Your task to perform on an android device: turn off location Image 0: 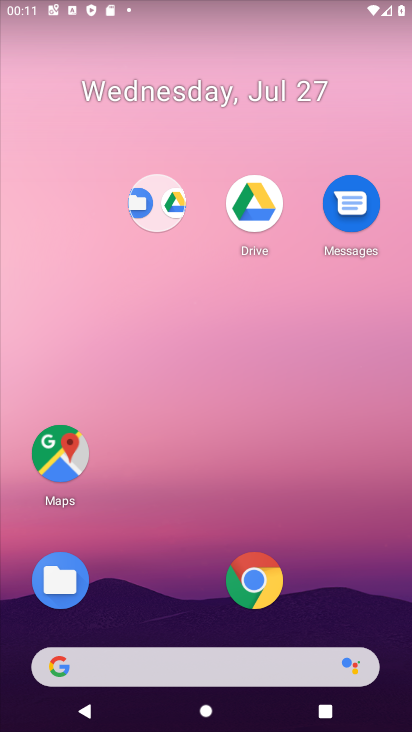
Step 0: drag from (145, 610) to (79, 83)
Your task to perform on an android device: turn off location Image 1: 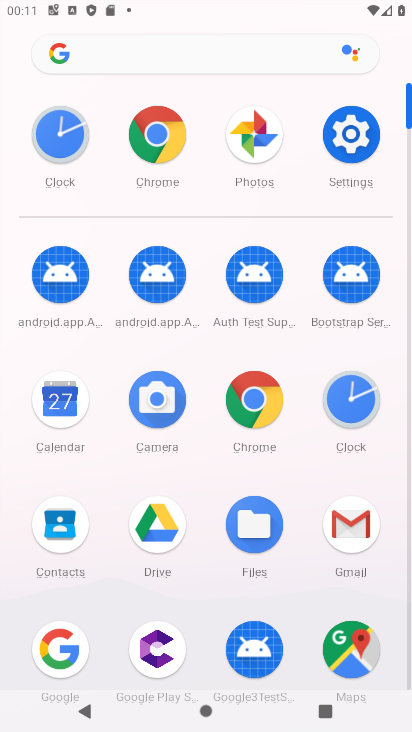
Step 1: click (334, 108)
Your task to perform on an android device: turn off location Image 2: 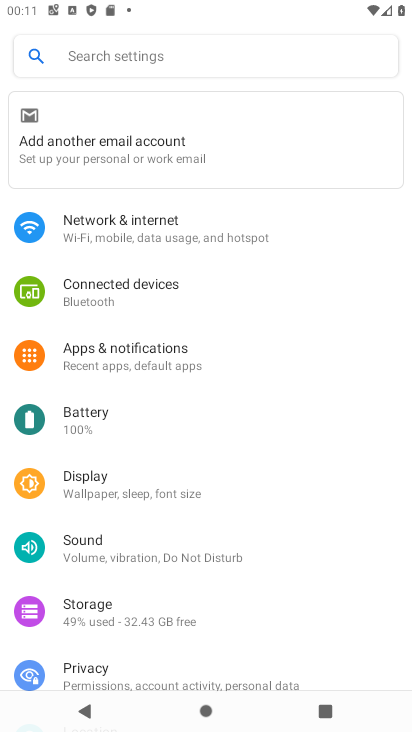
Step 2: drag from (108, 606) to (158, 235)
Your task to perform on an android device: turn off location Image 3: 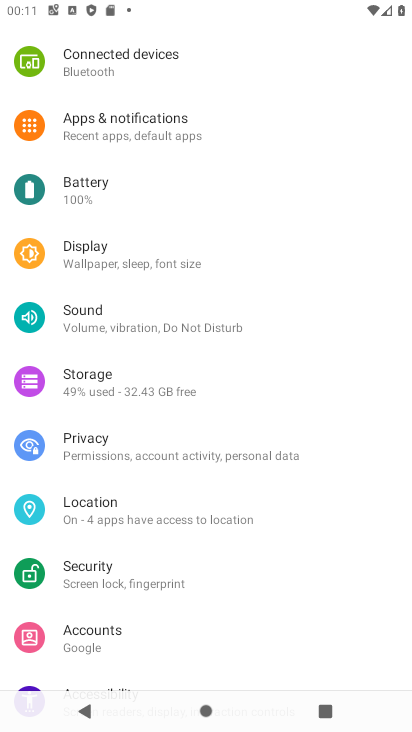
Step 3: click (87, 509)
Your task to perform on an android device: turn off location Image 4: 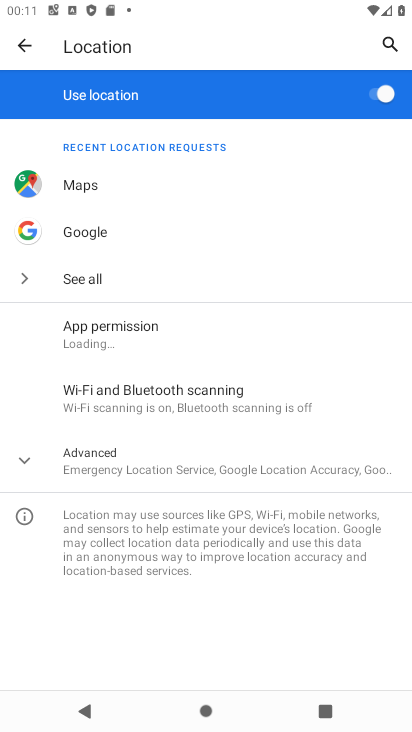
Step 4: click (387, 91)
Your task to perform on an android device: turn off location Image 5: 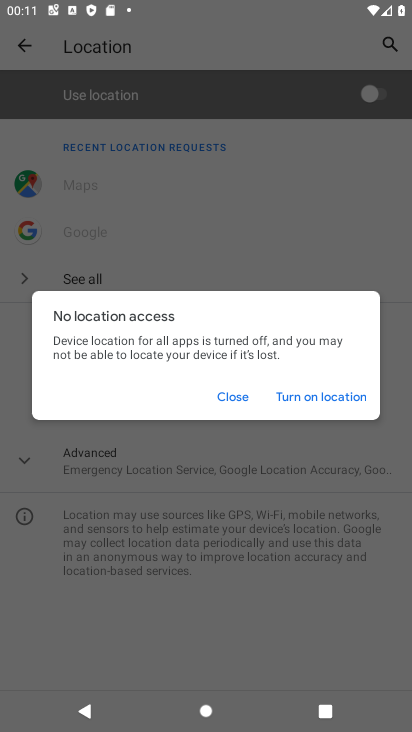
Step 5: task complete